Your task to perform on an android device: Open maps Image 0: 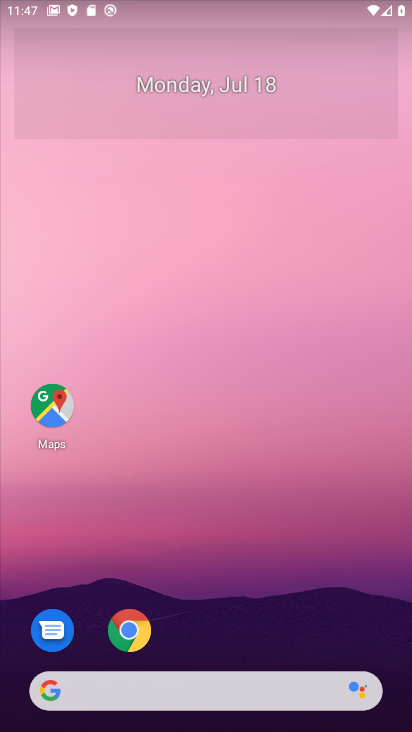
Step 0: click (52, 402)
Your task to perform on an android device: Open maps Image 1: 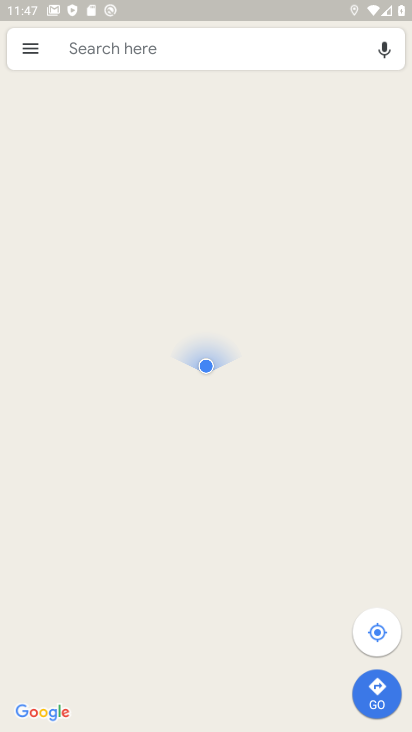
Step 1: task complete